Your task to perform on an android device: turn on sleep mode Image 0: 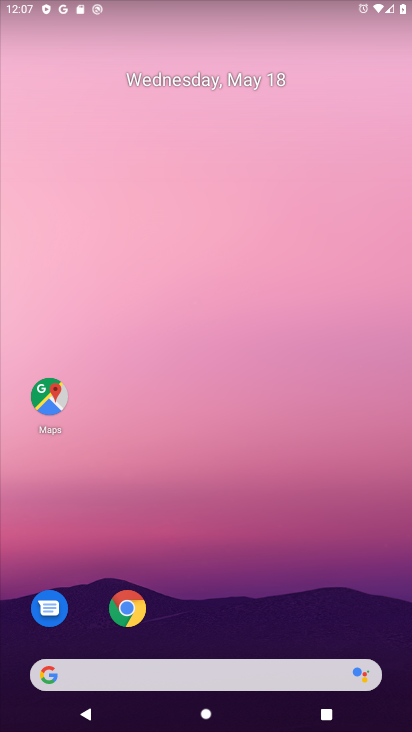
Step 0: drag from (280, 689) to (222, 222)
Your task to perform on an android device: turn on sleep mode Image 1: 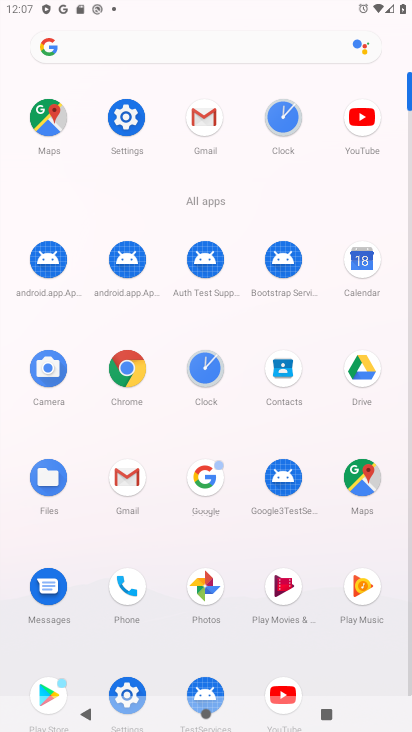
Step 1: click (122, 124)
Your task to perform on an android device: turn on sleep mode Image 2: 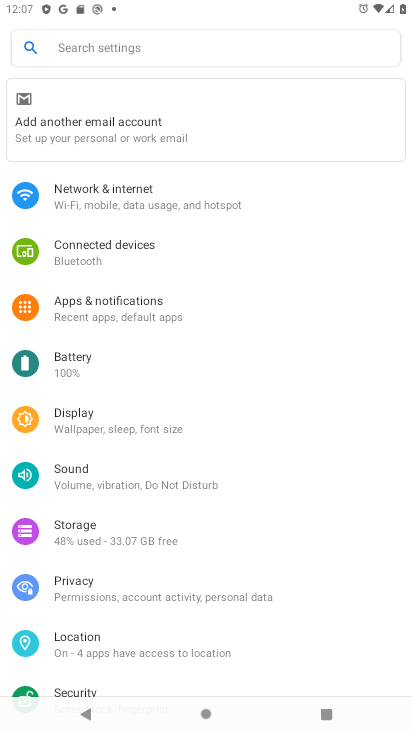
Step 2: click (130, 52)
Your task to perform on an android device: turn on sleep mode Image 3: 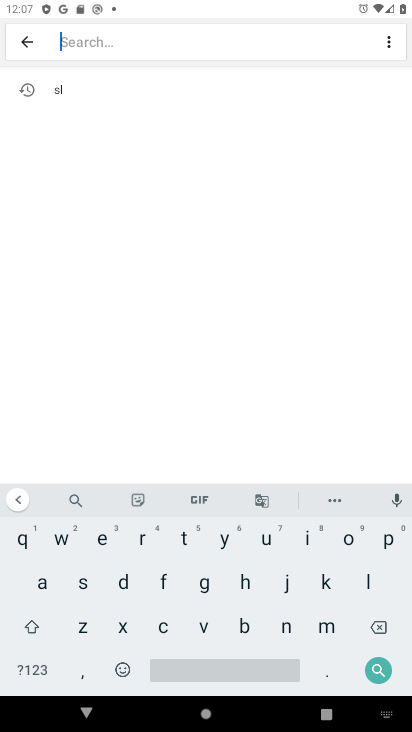
Step 3: click (83, 586)
Your task to perform on an android device: turn on sleep mode Image 4: 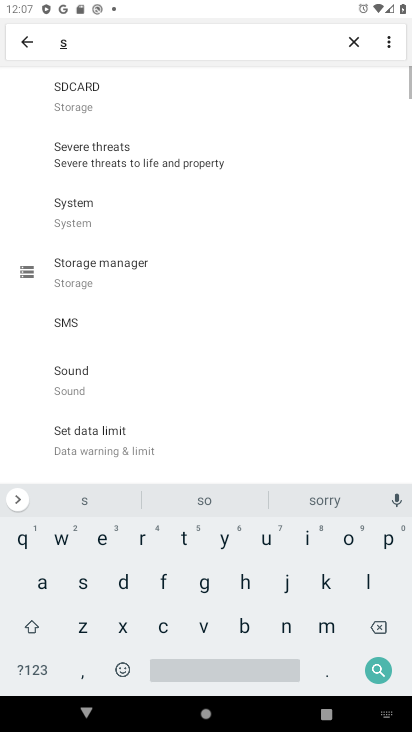
Step 4: click (367, 586)
Your task to perform on an android device: turn on sleep mode Image 5: 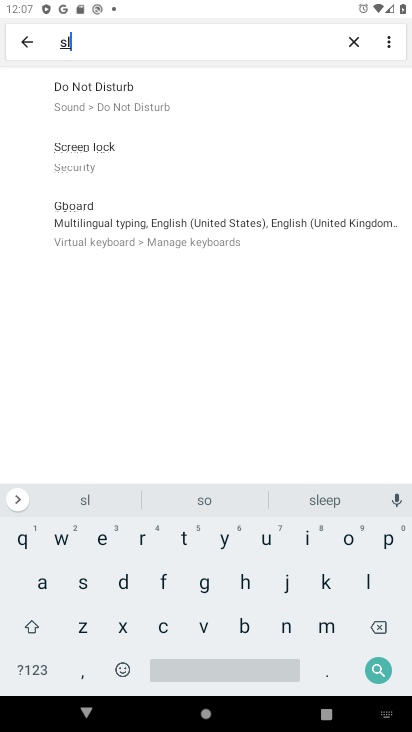
Step 5: click (117, 115)
Your task to perform on an android device: turn on sleep mode Image 6: 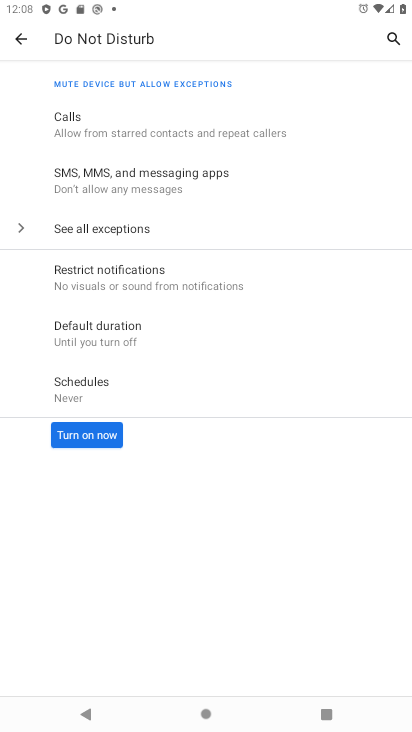
Step 6: click (82, 439)
Your task to perform on an android device: turn on sleep mode Image 7: 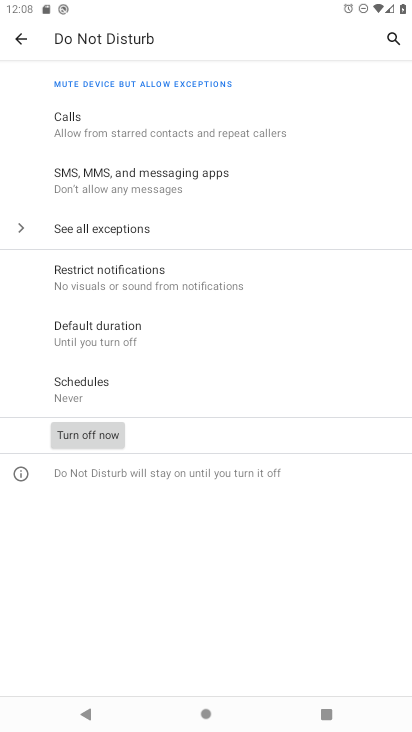
Step 7: task complete